Your task to perform on an android device: When is my next meeting? Image 0: 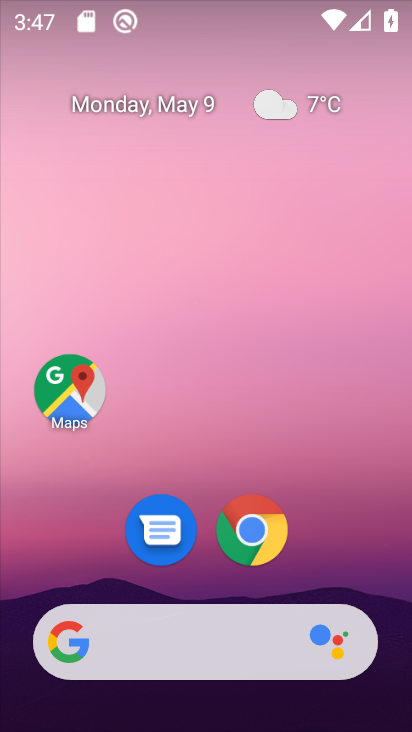
Step 0: drag from (250, 549) to (305, 156)
Your task to perform on an android device: When is my next meeting? Image 1: 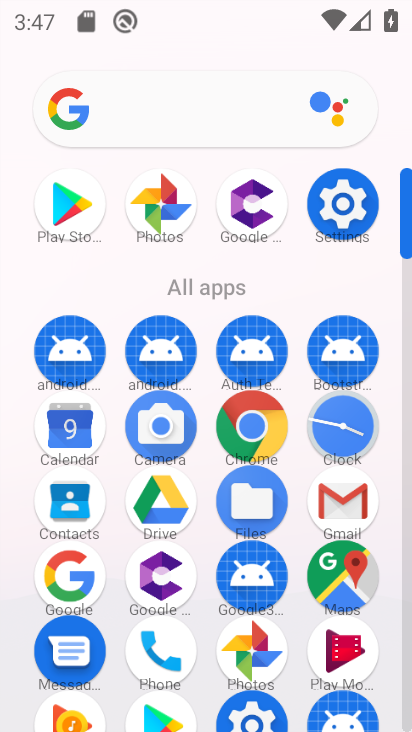
Step 1: click (69, 421)
Your task to perform on an android device: When is my next meeting? Image 2: 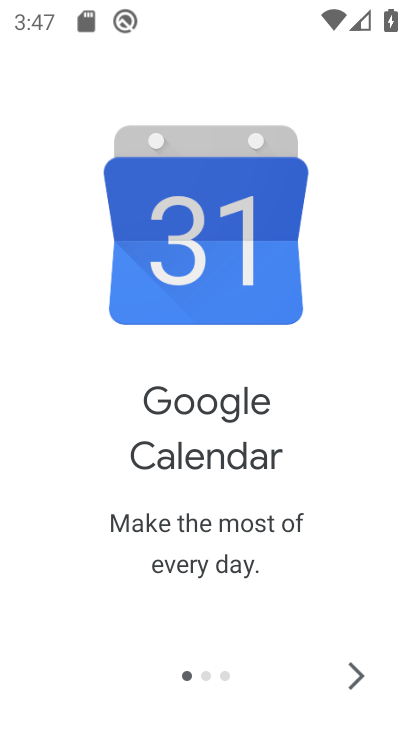
Step 2: click (345, 690)
Your task to perform on an android device: When is my next meeting? Image 3: 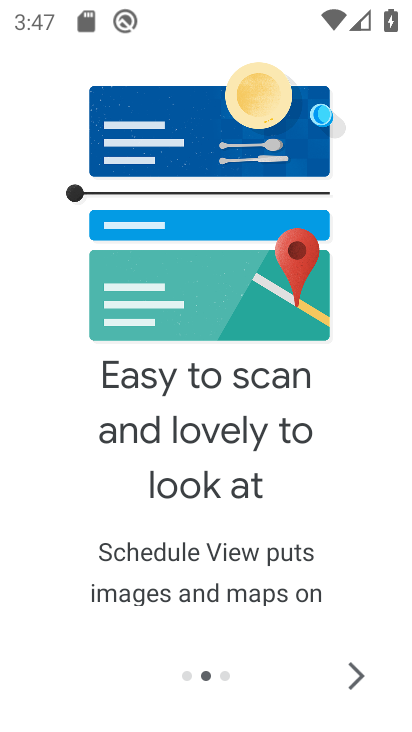
Step 3: click (349, 680)
Your task to perform on an android device: When is my next meeting? Image 4: 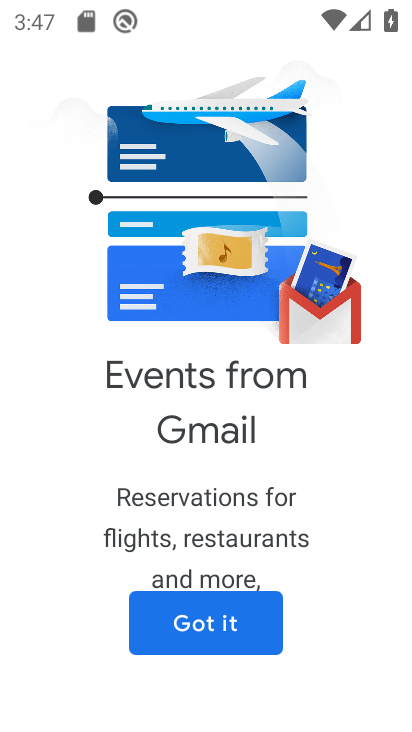
Step 4: click (204, 622)
Your task to perform on an android device: When is my next meeting? Image 5: 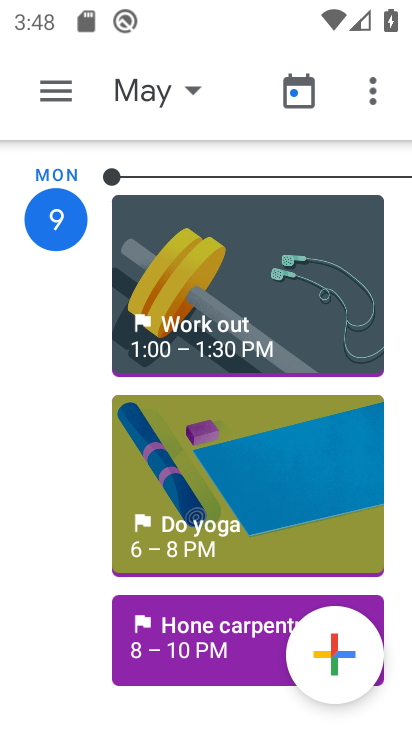
Step 5: drag from (171, 632) to (286, 116)
Your task to perform on an android device: When is my next meeting? Image 6: 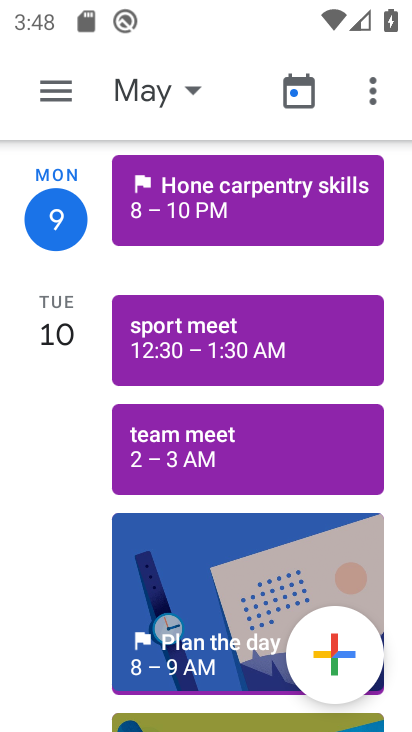
Step 6: click (209, 447)
Your task to perform on an android device: When is my next meeting? Image 7: 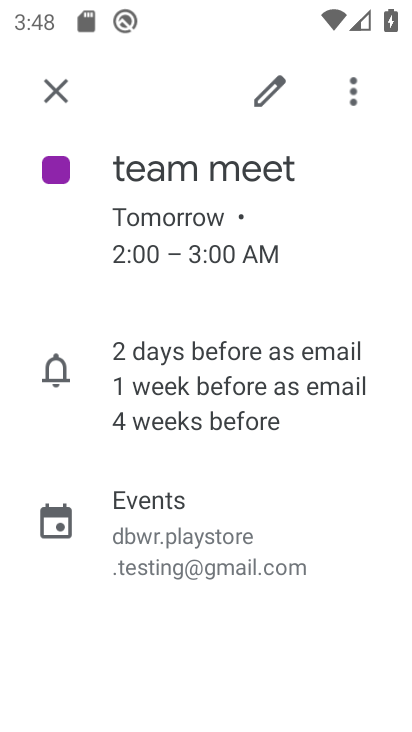
Step 7: task complete